Your task to perform on an android device: turn on showing notifications on the lock screen Image 0: 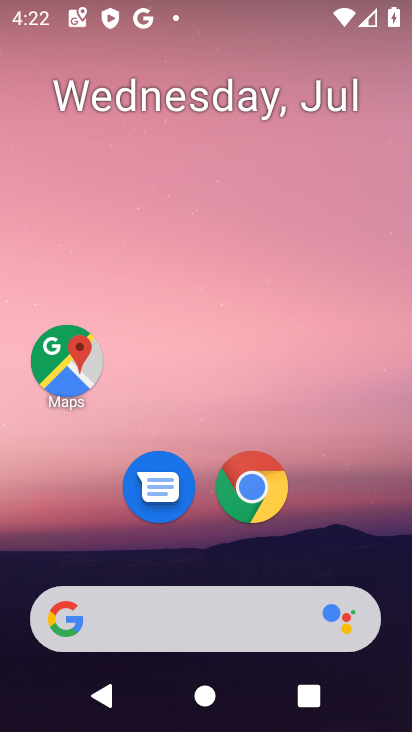
Step 0: drag from (212, 513) to (234, 4)
Your task to perform on an android device: turn on showing notifications on the lock screen Image 1: 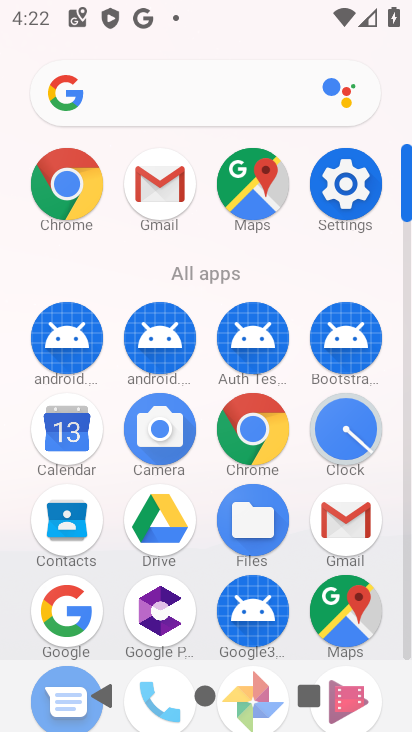
Step 1: click (346, 179)
Your task to perform on an android device: turn on showing notifications on the lock screen Image 2: 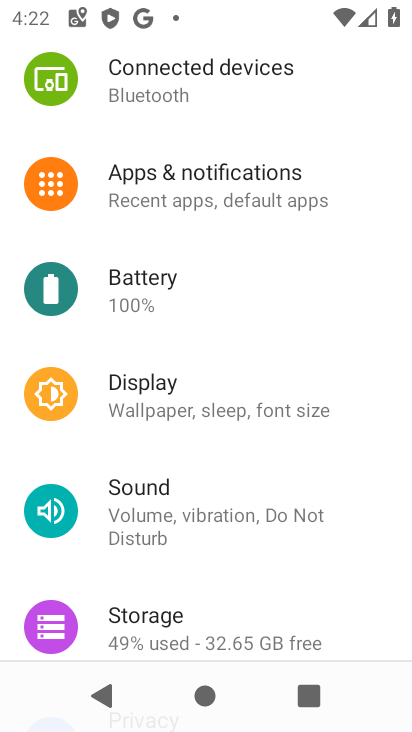
Step 2: click (236, 196)
Your task to perform on an android device: turn on showing notifications on the lock screen Image 3: 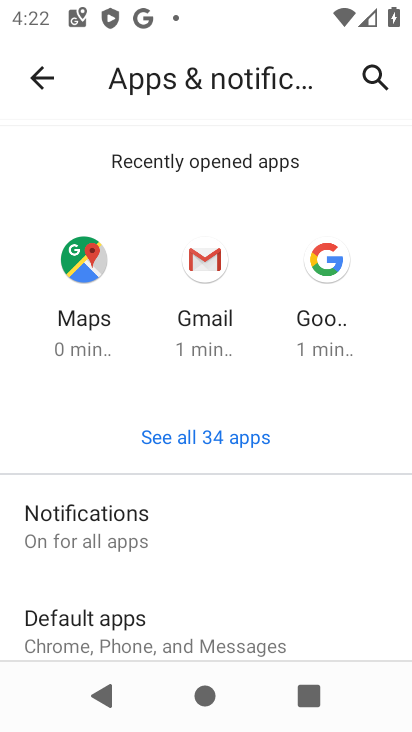
Step 3: click (90, 510)
Your task to perform on an android device: turn on showing notifications on the lock screen Image 4: 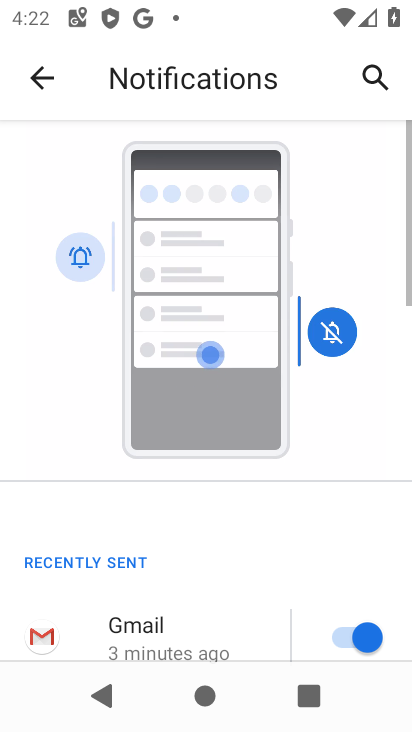
Step 4: drag from (153, 620) to (204, 44)
Your task to perform on an android device: turn on showing notifications on the lock screen Image 5: 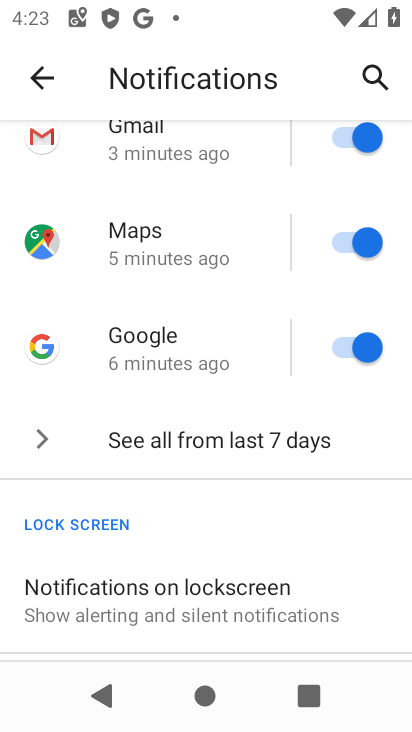
Step 5: click (133, 600)
Your task to perform on an android device: turn on showing notifications on the lock screen Image 6: 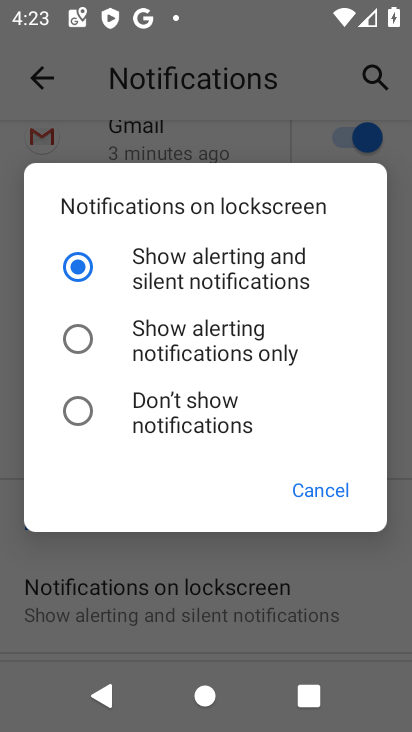
Step 6: task complete